Your task to perform on an android device: check battery use Image 0: 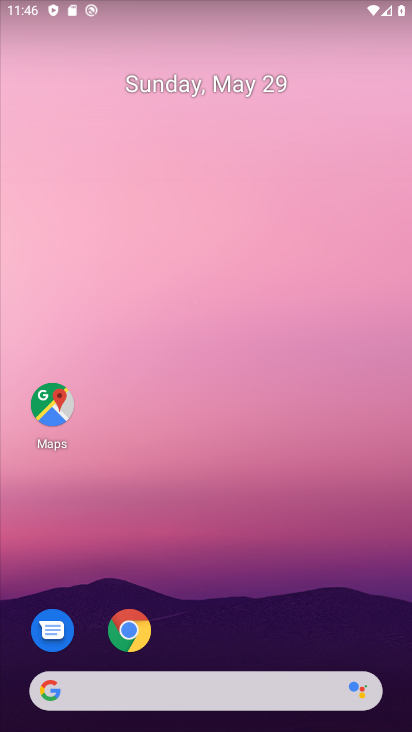
Step 0: drag from (226, 600) to (279, 42)
Your task to perform on an android device: check battery use Image 1: 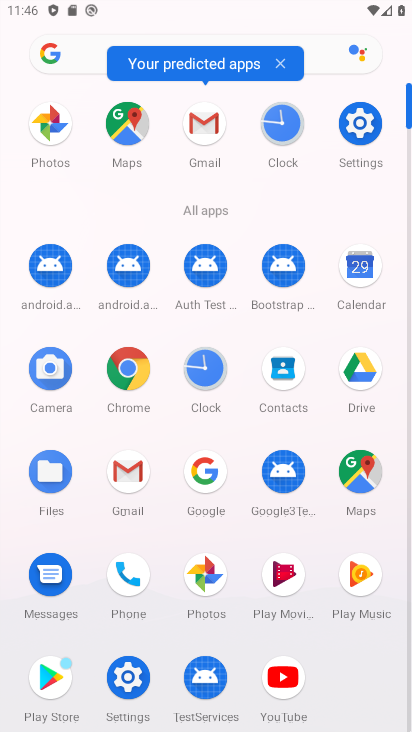
Step 1: click (131, 663)
Your task to perform on an android device: check battery use Image 2: 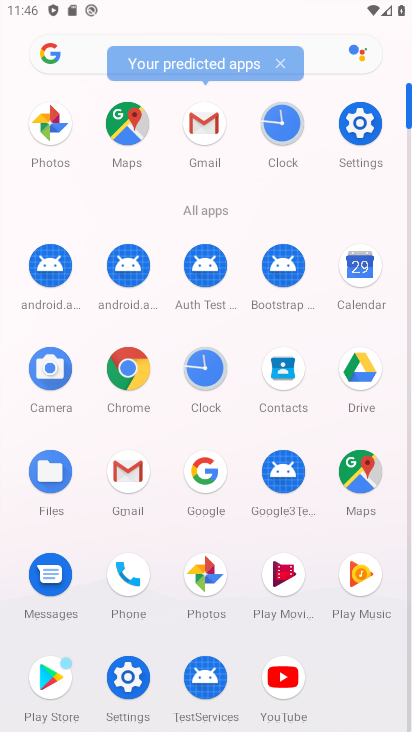
Step 2: click (129, 669)
Your task to perform on an android device: check battery use Image 3: 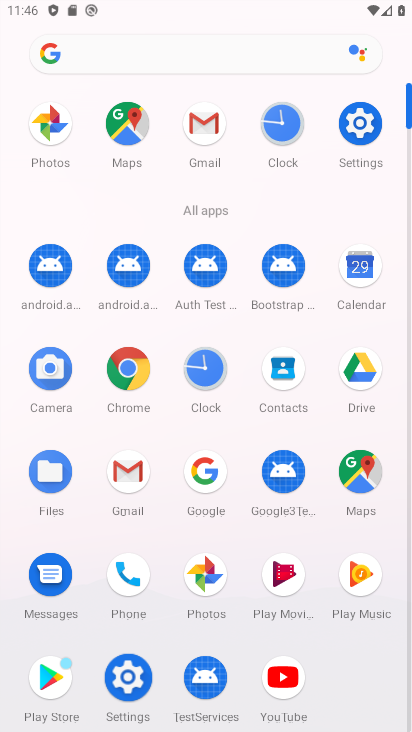
Step 3: click (130, 677)
Your task to perform on an android device: check battery use Image 4: 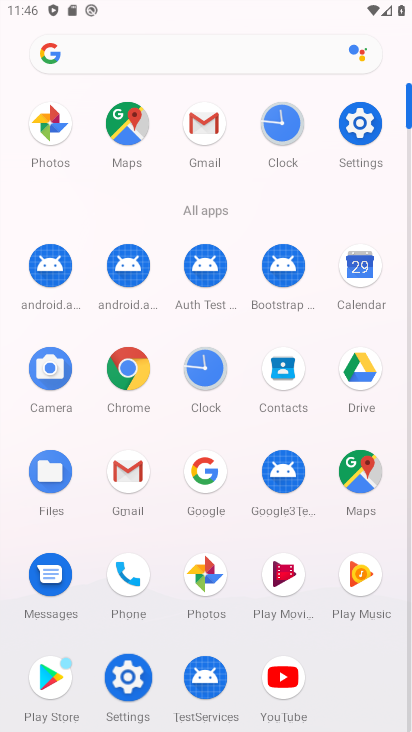
Step 4: click (130, 677)
Your task to perform on an android device: check battery use Image 5: 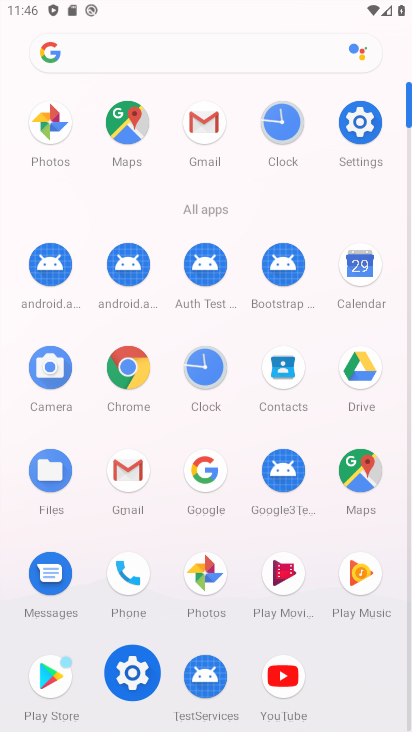
Step 5: click (131, 678)
Your task to perform on an android device: check battery use Image 6: 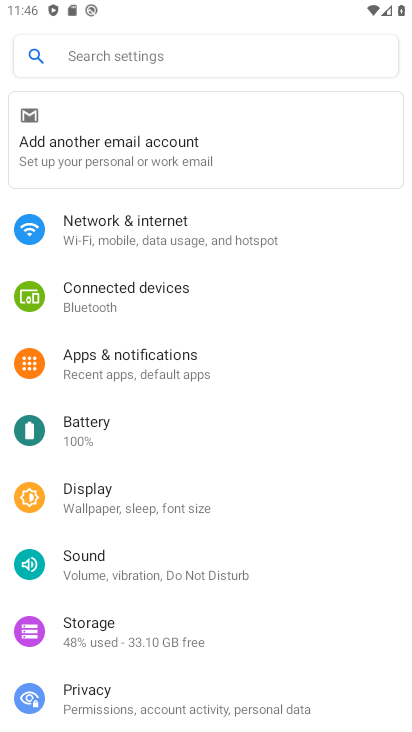
Step 6: click (78, 435)
Your task to perform on an android device: check battery use Image 7: 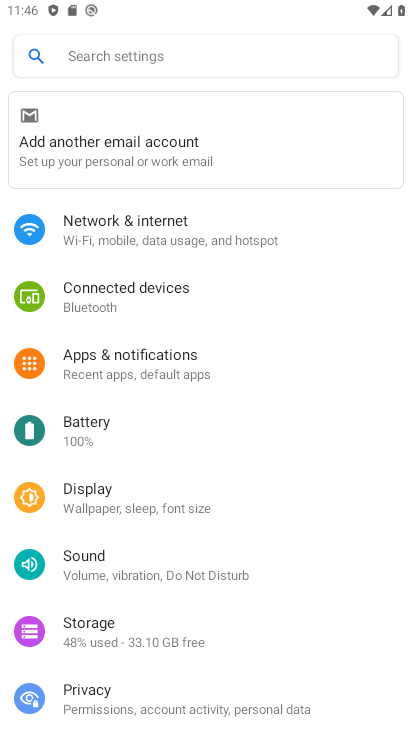
Step 7: click (78, 435)
Your task to perform on an android device: check battery use Image 8: 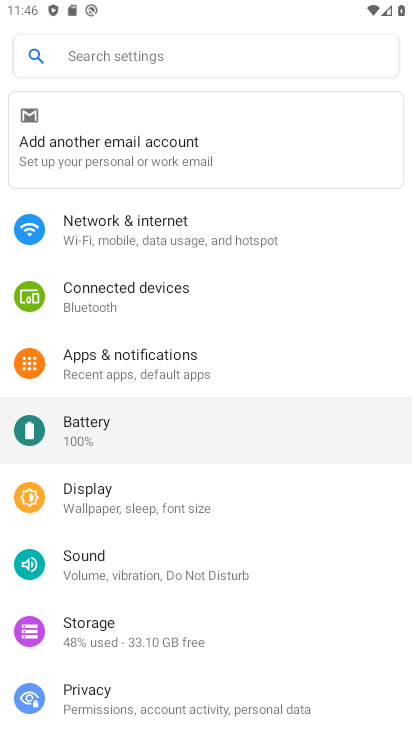
Step 8: click (78, 435)
Your task to perform on an android device: check battery use Image 9: 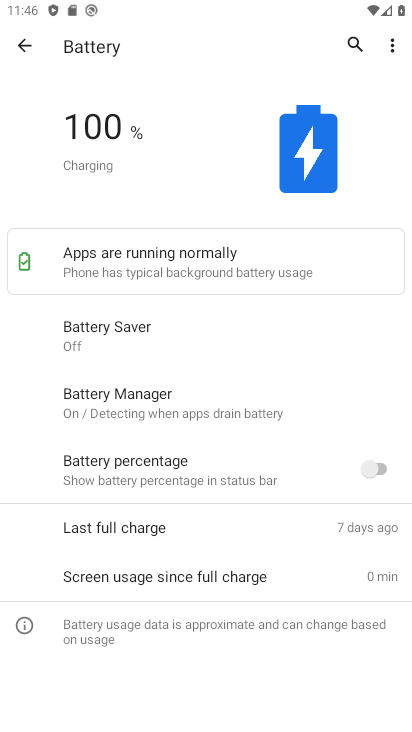
Step 9: task complete